Your task to perform on an android device: Go to location settings Image 0: 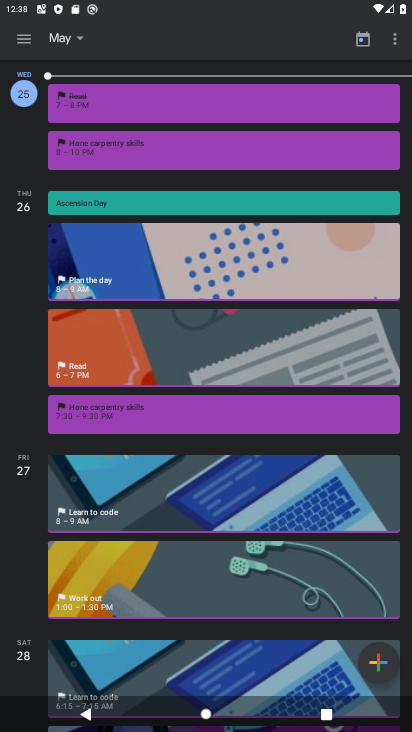
Step 0: task complete